Your task to perform on an android device: Go to accessibility settings Image 0: 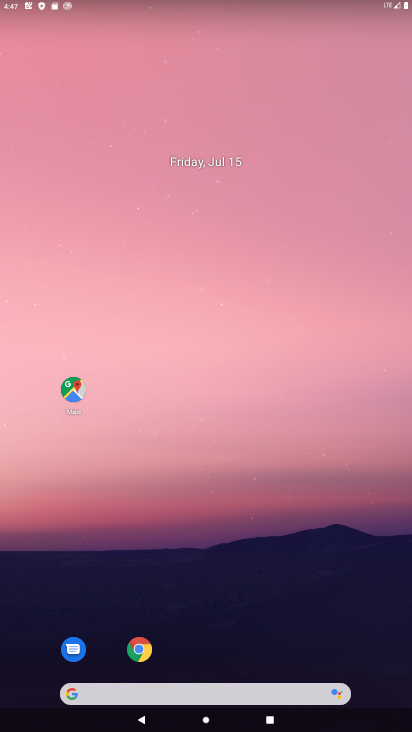
Step 0: drag from (268, 572) to (199, 3)
Your task to perform on an android device: Go to accessibility settings Image 1: 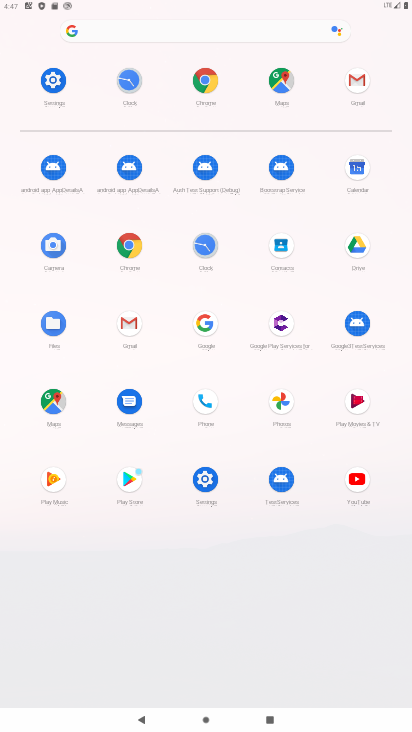
Step 1: click (54, 74)
Your task to perform on an android device: Go to accessibility settings Image 2: 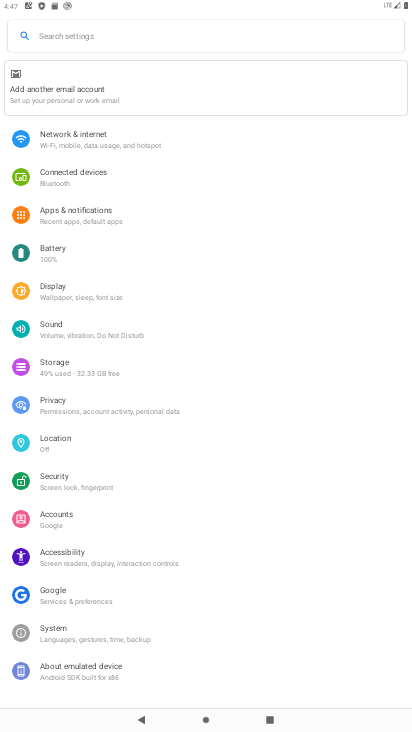
Step 2: click (103, 560)
Your task to perform on an android device: Go to accessibility settings Image 3: 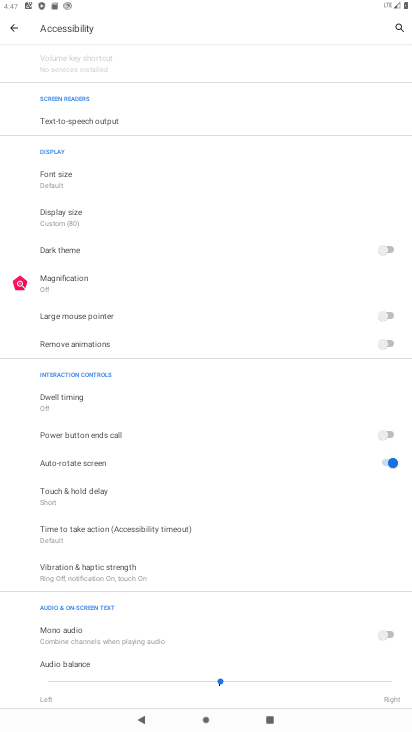
Step 3: task complete